Your task to perform on an android device: Search for lg ultragear on ebay.com, select the first entry, and add it to the cart. Image 0: 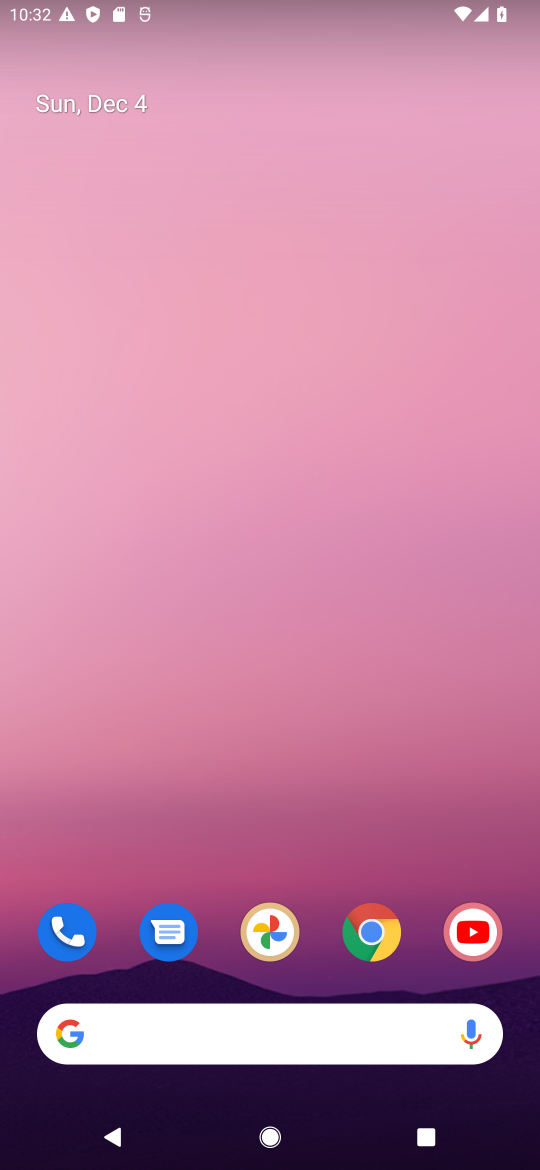
Step 0: click (367, 939)
Your task to perform on an android device: Search for lg ultragear on ebay.com, select the first entry, and add it to the cart. Image 1: 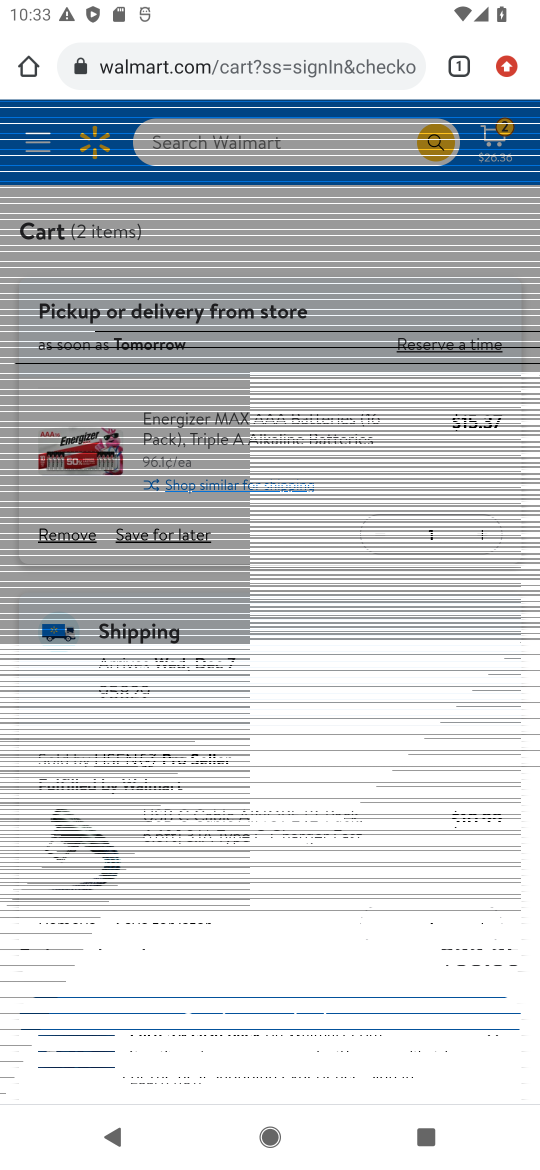
Step 1: click (295, 58)
Your task to perform on an android device: Search for lg ultragear on ebay.com, select the first entry, and add it to the cart. Image 2: 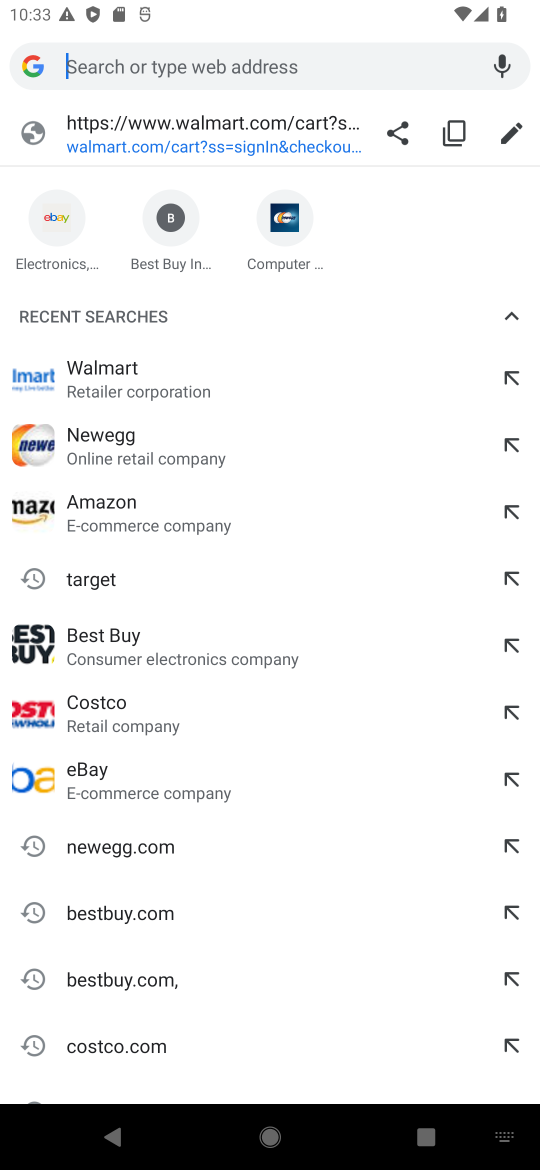
Step 2: click (119, 784)
Your task to perform on an android device: Search for lg ultragear on ebay.com, select the first entry, and add it to the cart. Image 3: 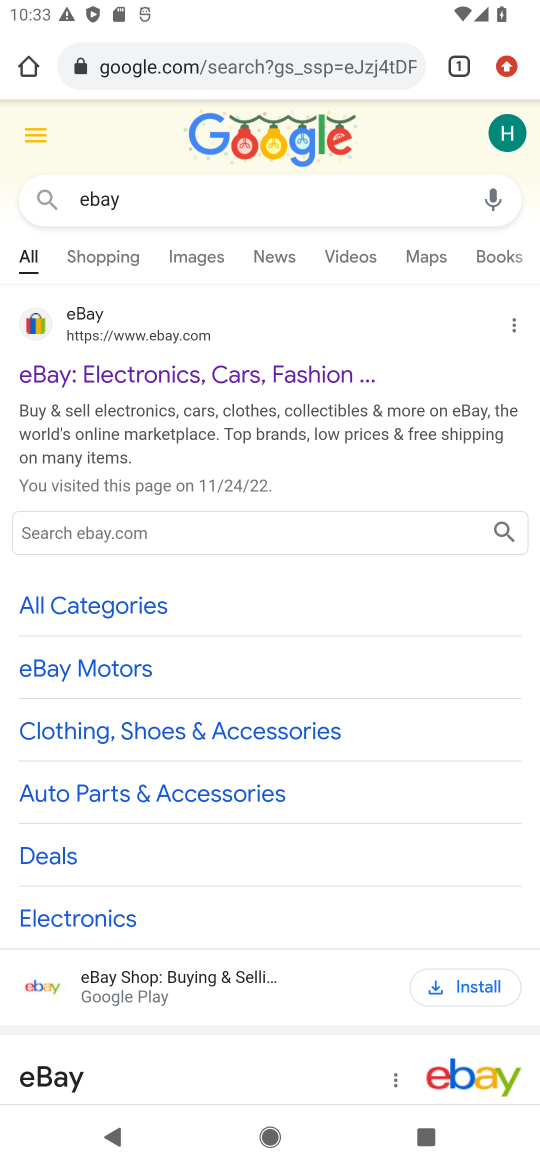
Step 3: click (185, 377)
Your task to perform on an android device: Search for lg ultragear on ebay.com, select the first entry, and add it to the cart. Image 4: 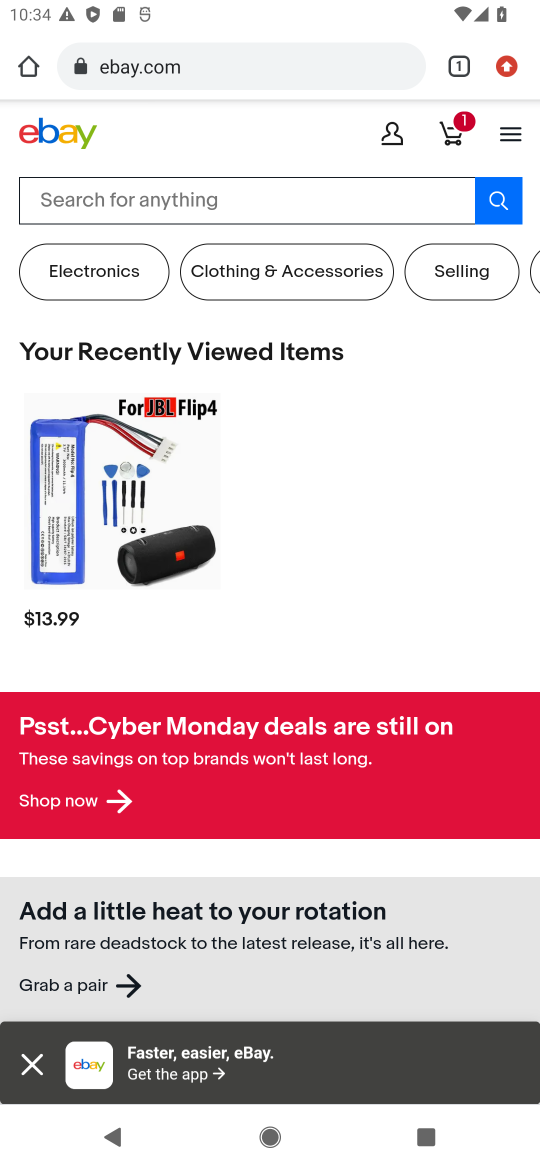
Step 4: click (322, 192)
Your task to perform on an android device: Search for lg ultragear on ebay.com, select the first entry, and add it to the cart. Image 5: 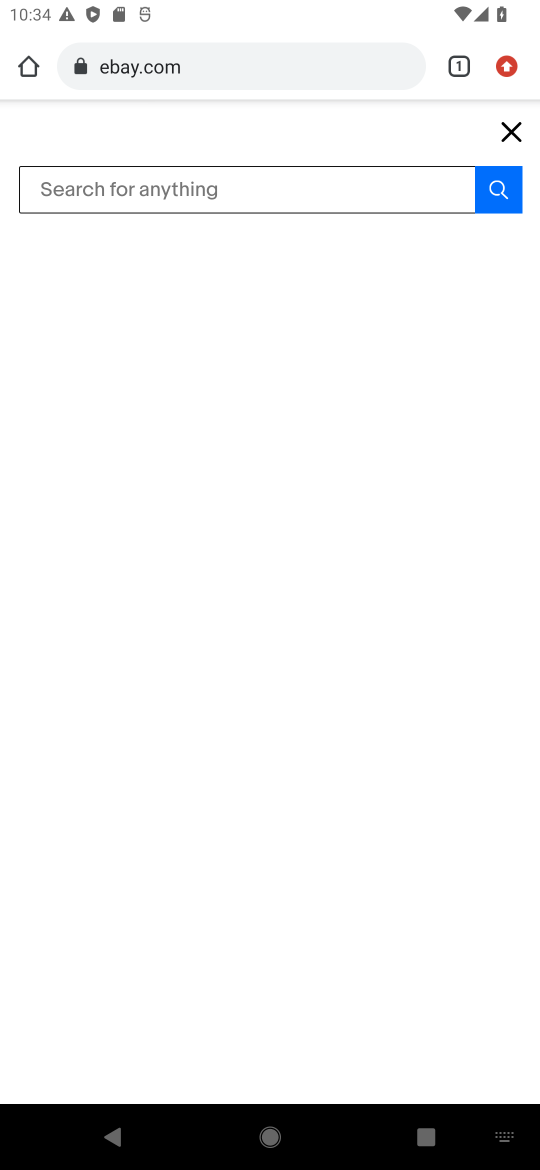
Step 5: type "lg ultragear"
Your task to perform on an android device: Search for lg ultragear on ebay.com, select the first entry, and add it to the cart. Image 6: 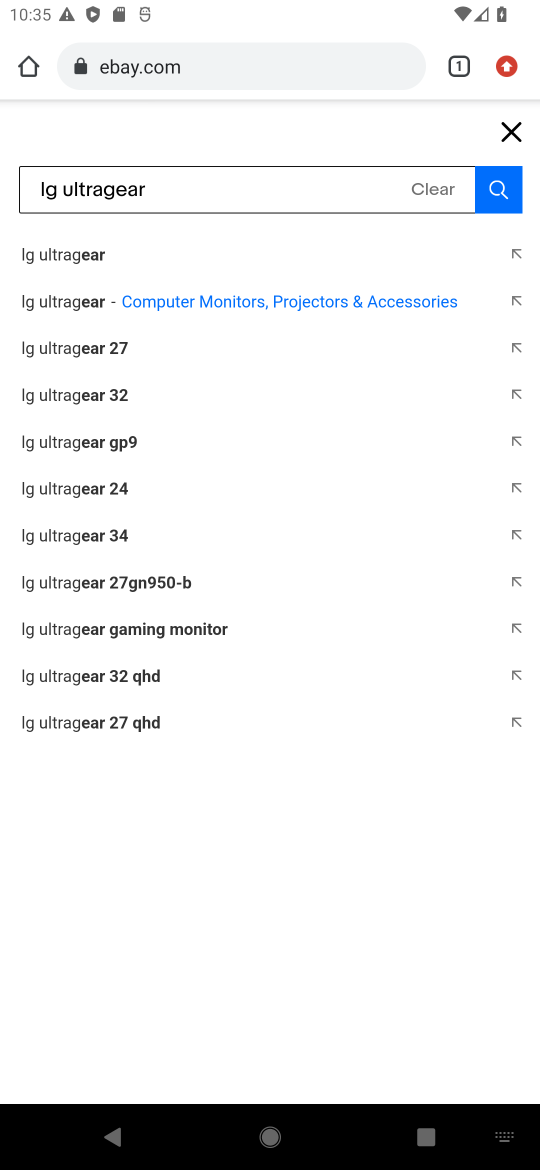
Step 6: click (95, 251)
Your task to perform on an android device: Search for lg ultragear on ebay.com, select the first entry, and add it to the cart. Image 7: 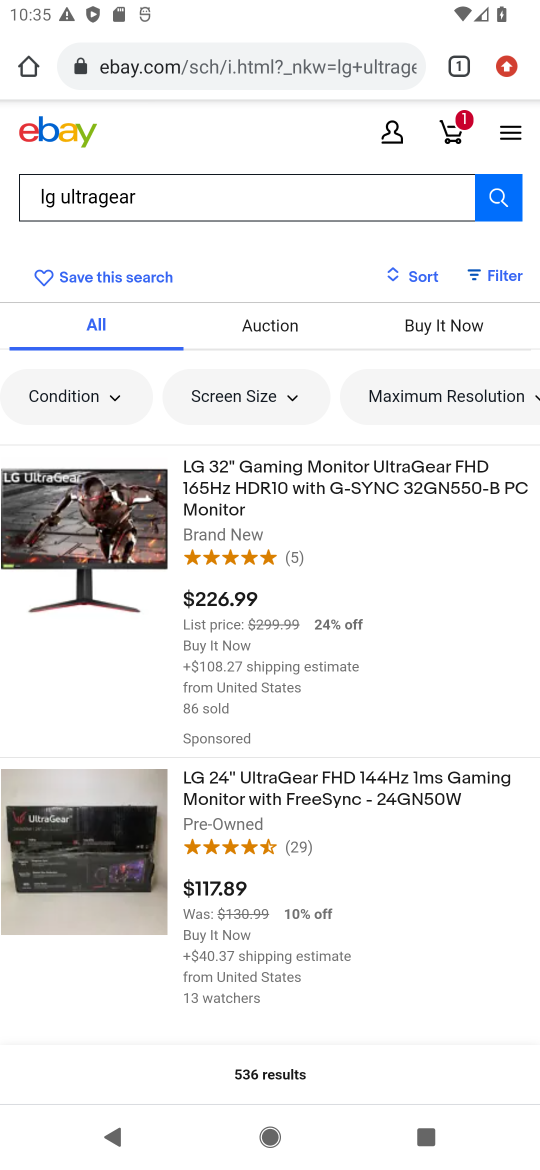
Step 7: click (99, 553)
Your task to perform on an android device: Search for lg ultragear on ebay.com, select the first entry, and add it to the cart. Image 8: 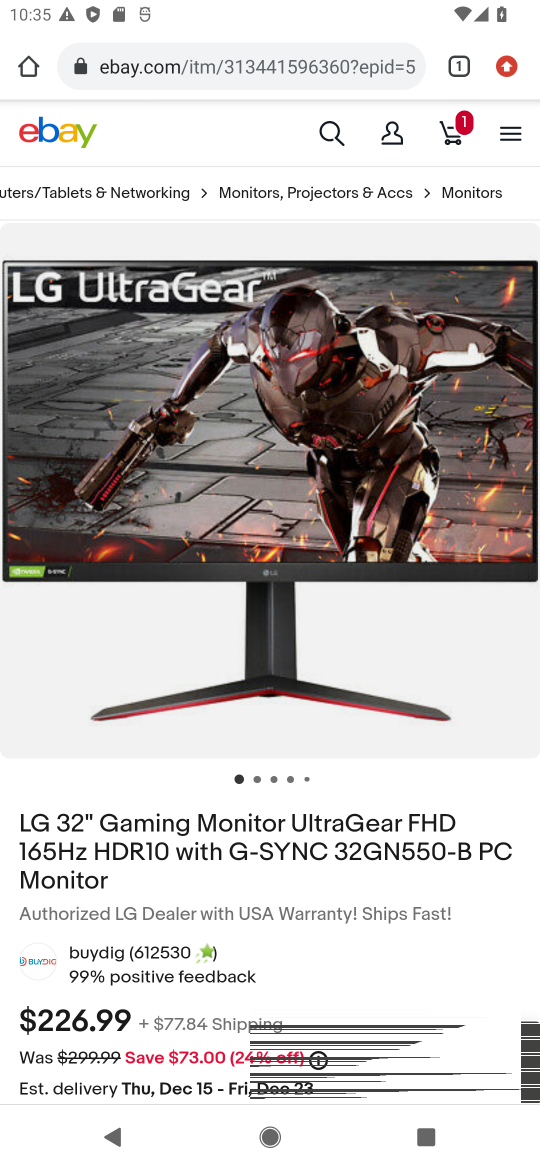
Step 8: drag from (322, 968) to (299, 400)
Your task to perform on an android device: Search for lg ultragear on ebay.com, select the first entry, and add it to the cart. Image 9: 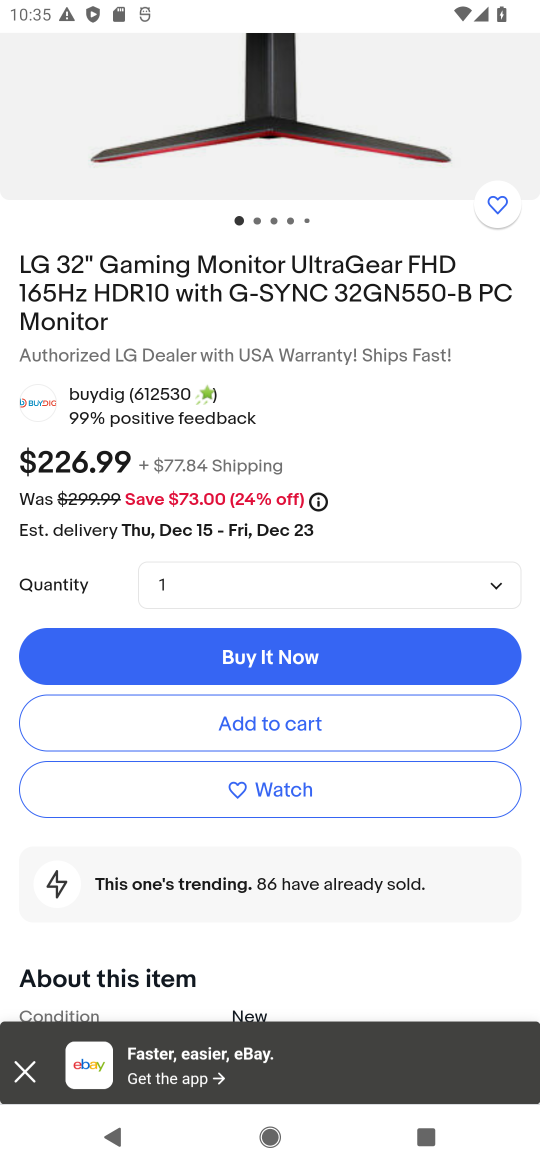
Step 9: click (270, 724)
Your task to perform on an android device: Search for lg ultragear on ebay.com, select the first entry, and add it to the cart. Image 10: 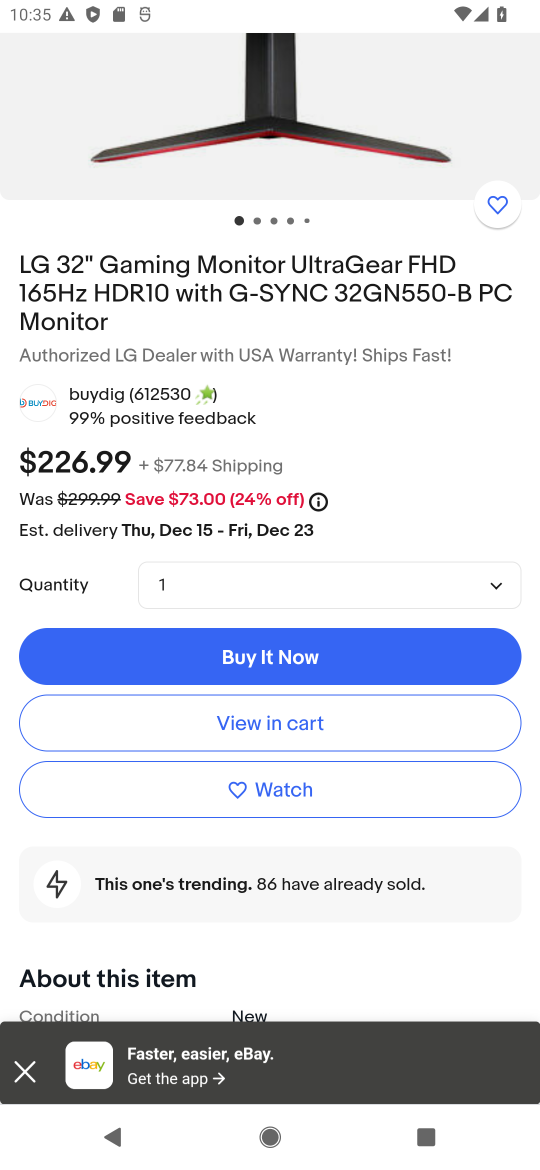
Step 10: task complete